Your task to perform on an android device: change keyboard looks Image 0: 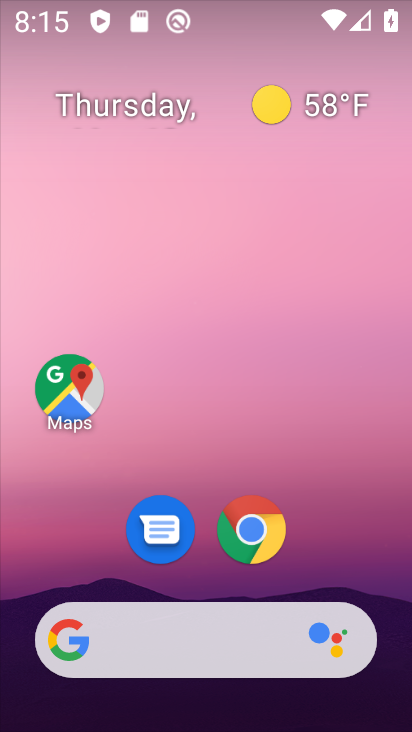
Step 0: drag from (216, 576) to (229, 53)
Your task to perform on an android device: change keyboard looks Image 1: 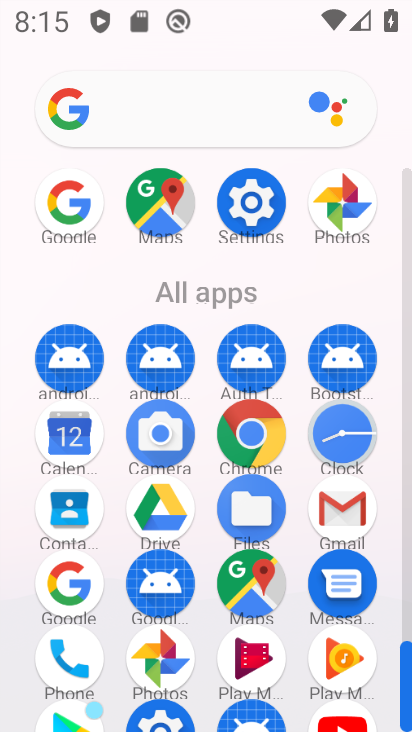
Step 1: click (249, 213)
Your task to perform on an android device: change keyboard looks Image 2: 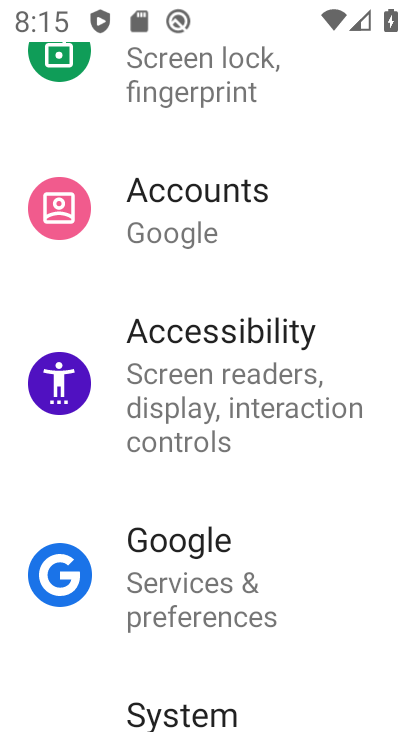
Step 2: drag from (222, 607) to (254, 210)
Your task to perform on an android device: change keyboard looks Image 3: 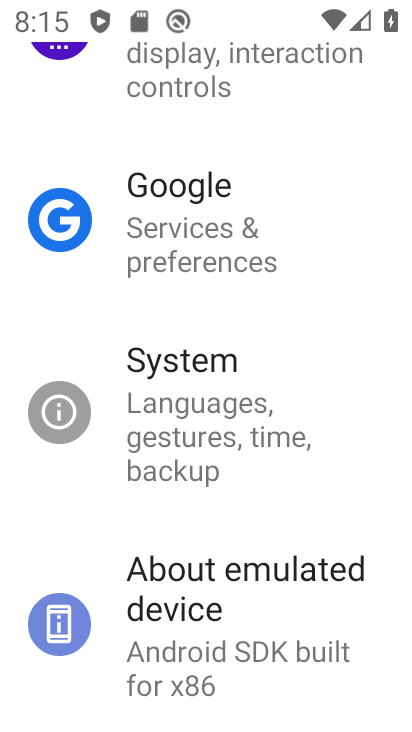
Step 3: click (198, 391)
Your task to perform on an android device: change keyboard looks Image 4: 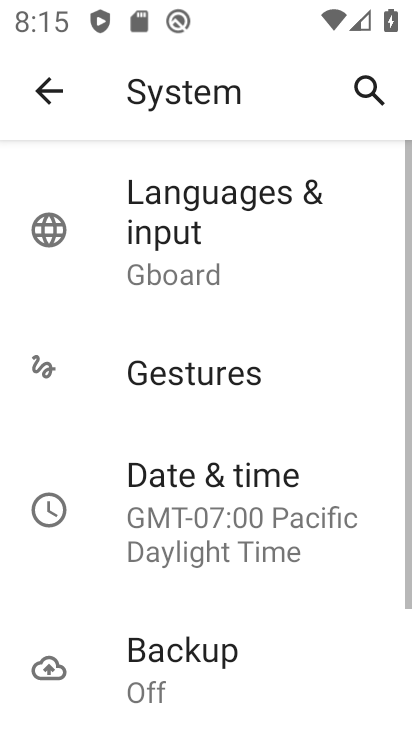
Step 4: click (201, 233)
Your task to perform on an android device: change keyboard looks Image 5: 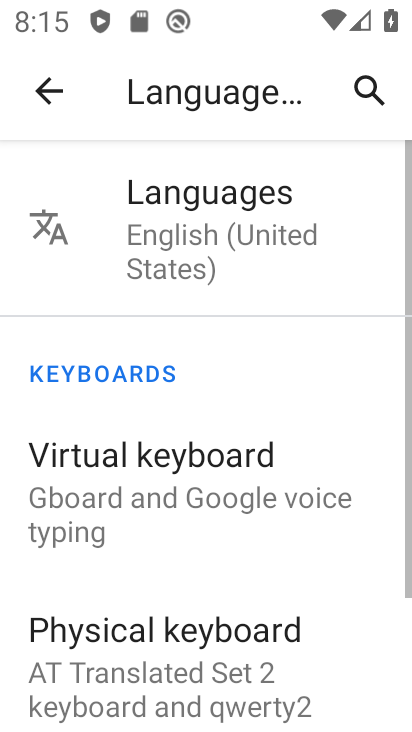
Step 5: click (166, 486)
Your task to perform on an android device: change keyboard looks Image 6: 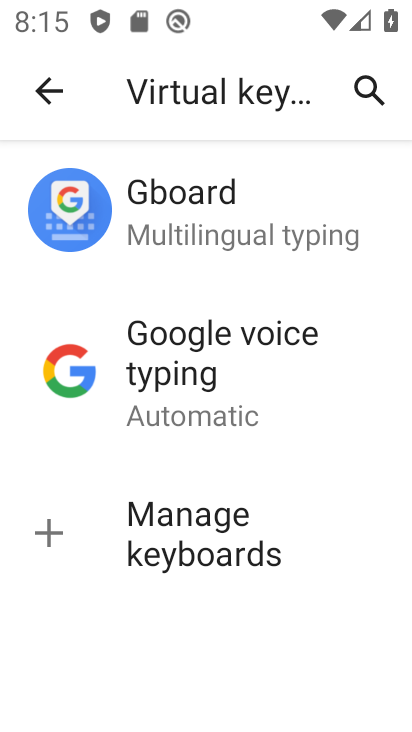
Step 6: click (181, 227)
Your task to perform on an android device: change keyboard looks Image 7: 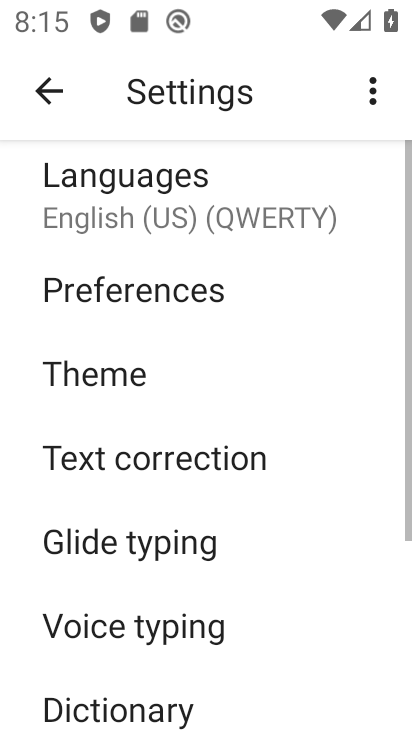
Step 7: click (126, 394)
Your task to perform on an android device: change keyboard looks Image 8: 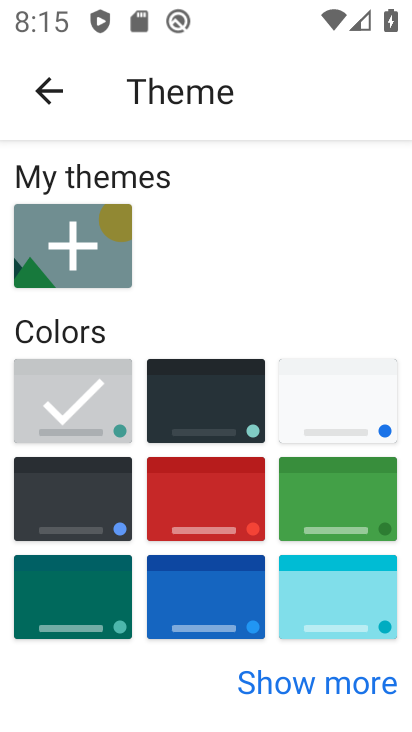
Step 8: click (194, 403)
Your task to perform on an android device: change keyboard looks Image 9: 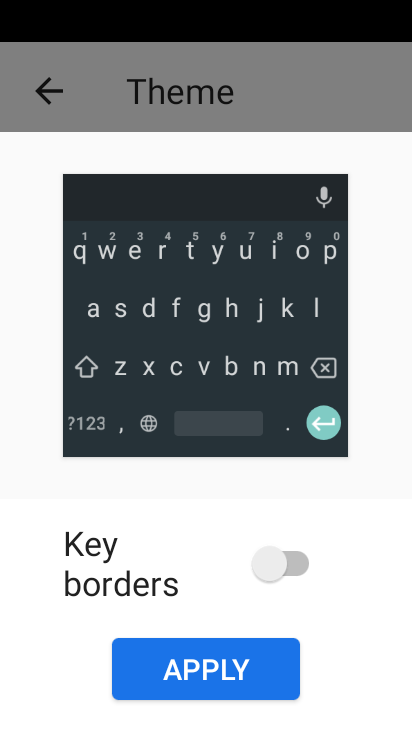
Step 9: click (181, 659)
Your task to perform on an android device: change keyboard looks Image 10: 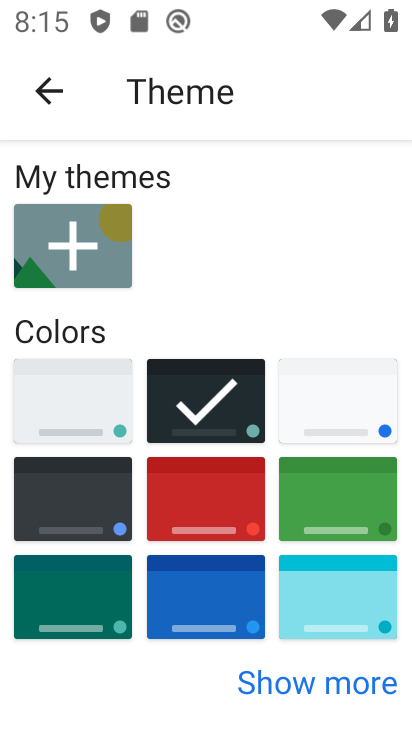
Step 10: task complete